Your task to perform on an android device: see sites visited before in the chrome app Image 0: 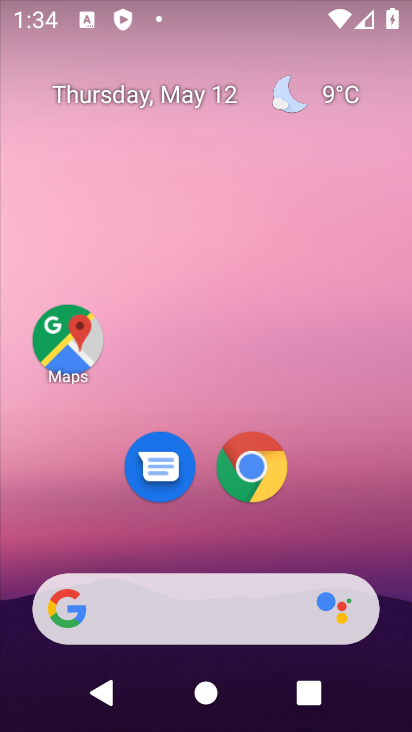
Step 0: drag from (314, 600) to (291, 166)
Your task to perform on an android device: see sites visited before in the chrome app Image 1: 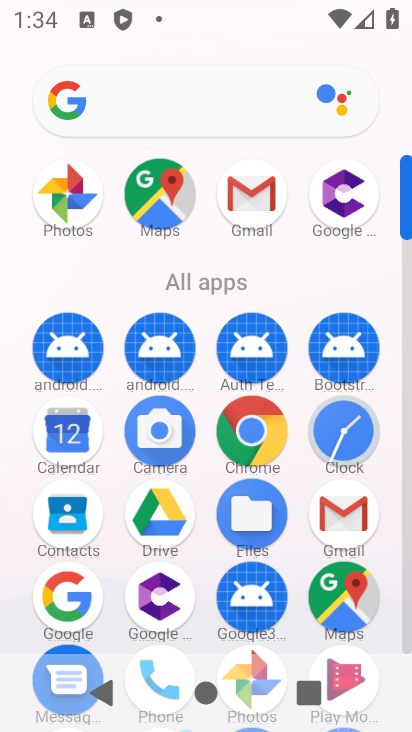
Step 1: click (247, 434)
Your task to perform on an android device: see sites visited before in the chrome app Image 2: 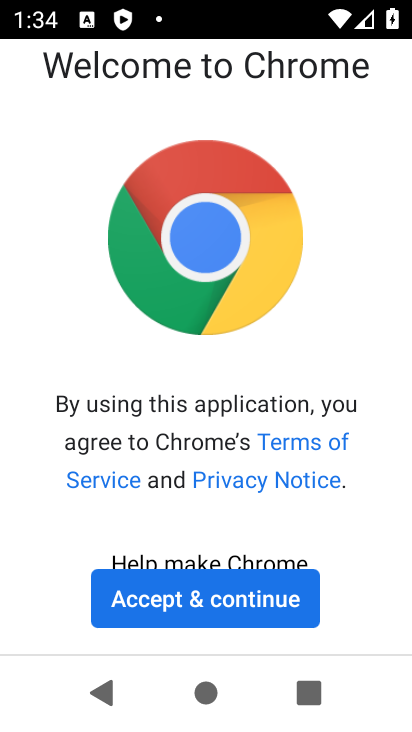
Step 2: click (229, 586)
Your task to perform on an android device: see sites visited before in the chrome app Image 3: 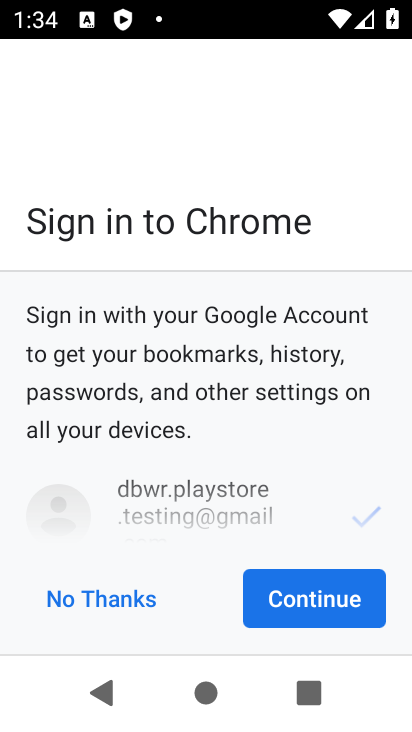
Step 3: click (335, 586)
Your task to perform on an android device: see sites visited before in the chrome app Image 4: 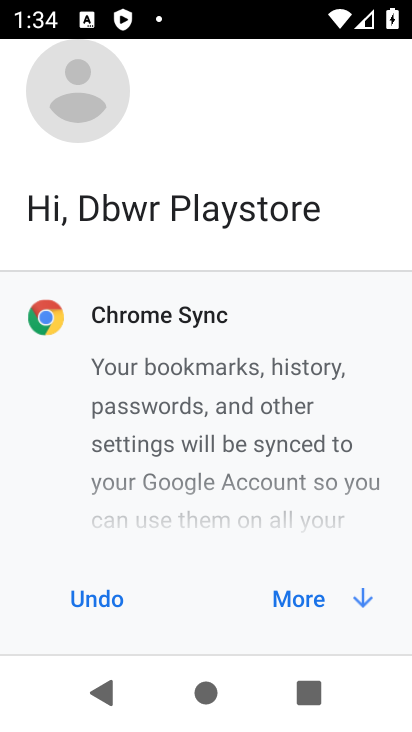
Step 4: click (303, 590)
Your task to perform on an android device: see sites visited before in the chrome app Image 5: 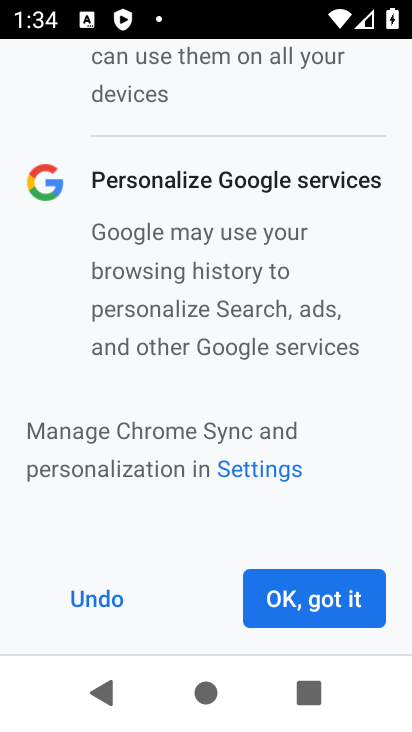
Step 5: click (315, 604)
Your task to perform on an android device: see sites visited before in the chrome app Image 6: 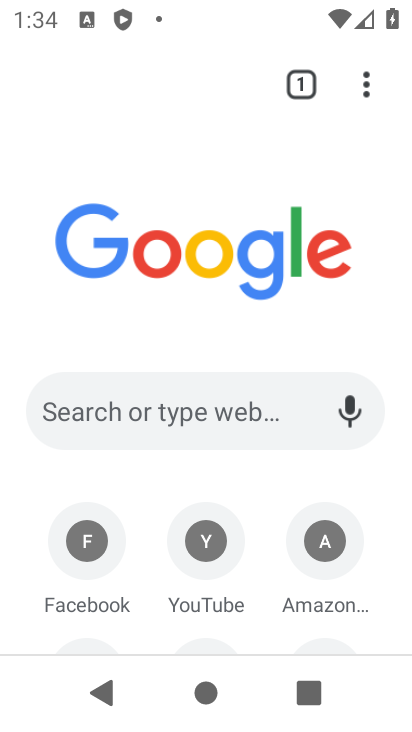
Step 6: click (357, 75)
Your task to perform on an android device: see sites visited before in the chrome app Image 7: 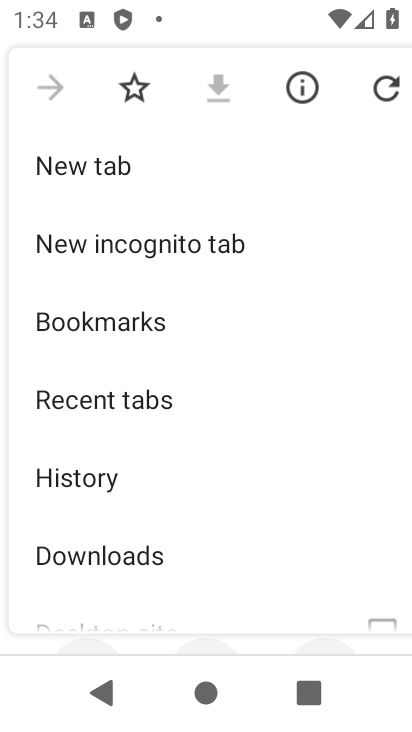
Step 7: click (80, 475)
Your task to perform on an android device: see sites visited before in the chrome app Image 8: 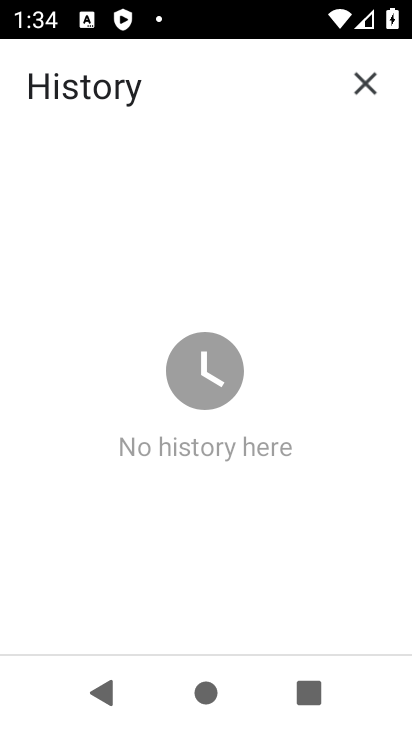
Step 8: task complete